Your task to perform on an android device: Open wifi settings Image 0: 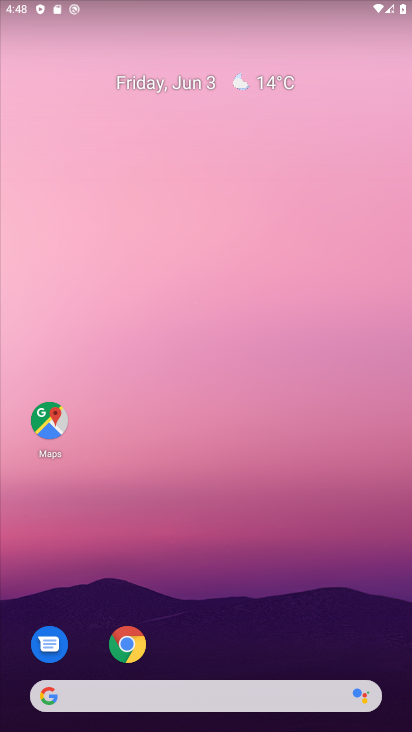
Step 0: click (129, 647)
Your task to perform on an android device: Open wifi settings Image 1: 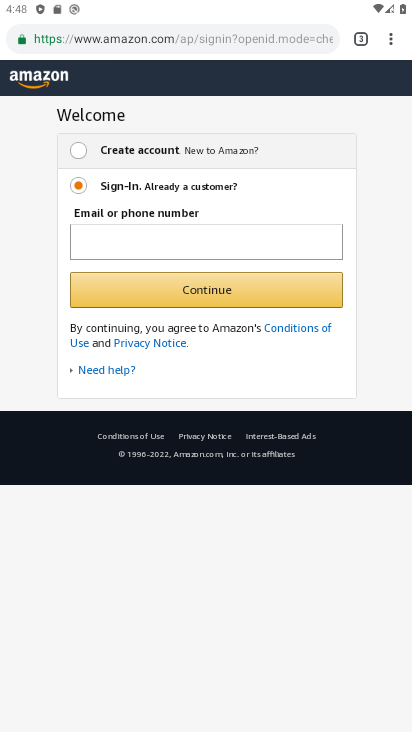
Step 1: drag from (175, 7) to (216, 204)
Your task to perform on an android device: Open wifi settings Image 2: 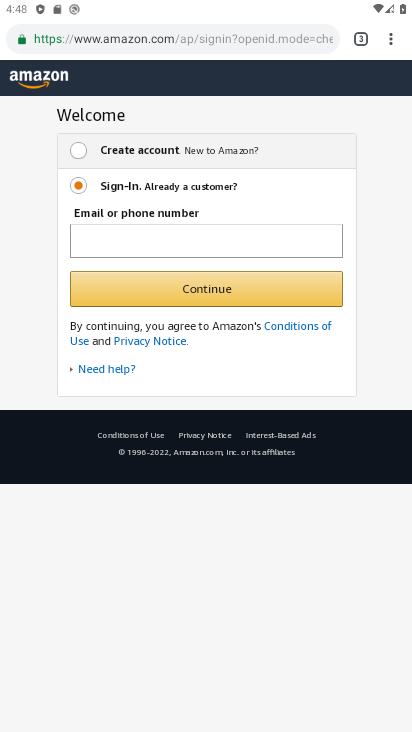
Step 2: drag from (145, 16) to (221, 319)
Your task to perform on an android device: Open wifi settings Image 3: 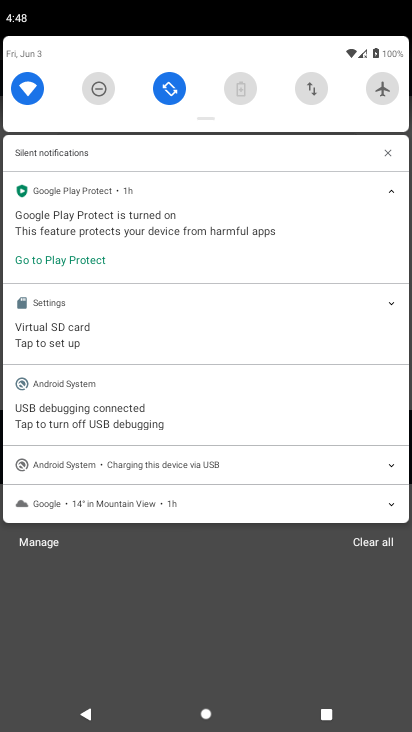
Step 3: click (31, 90)
Your task to perform on an android device: Open wifi settings Image 4: 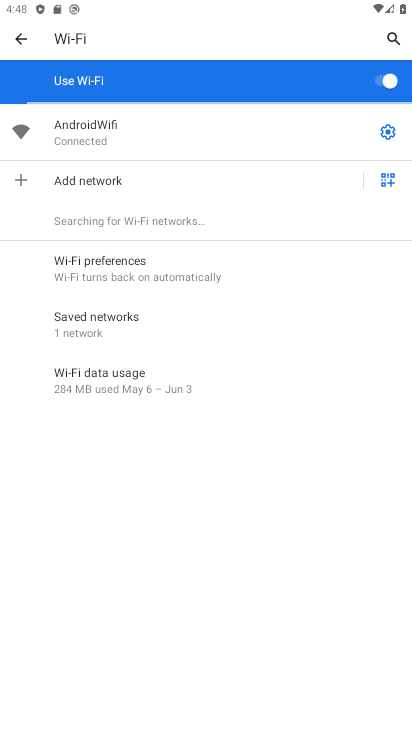
Step 4: task complete